Your task to perform on an android device: Search for sushi restaurants on Maps Image 0: 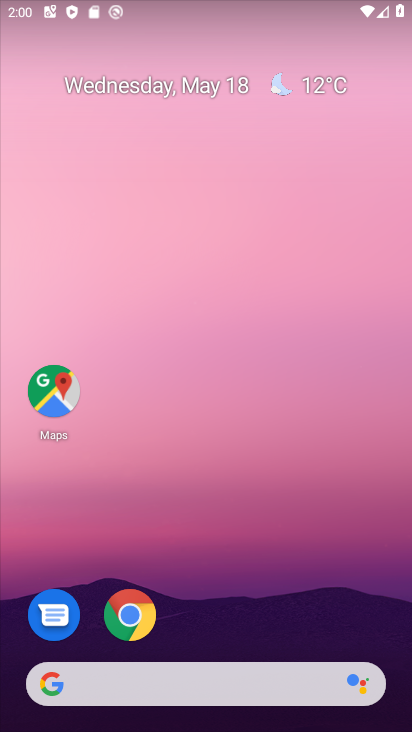
Step 0: drag from (341, 511) to (298, 14)
Your task to perform on an android device: Search for sushi restaurants on Maps Image 1: 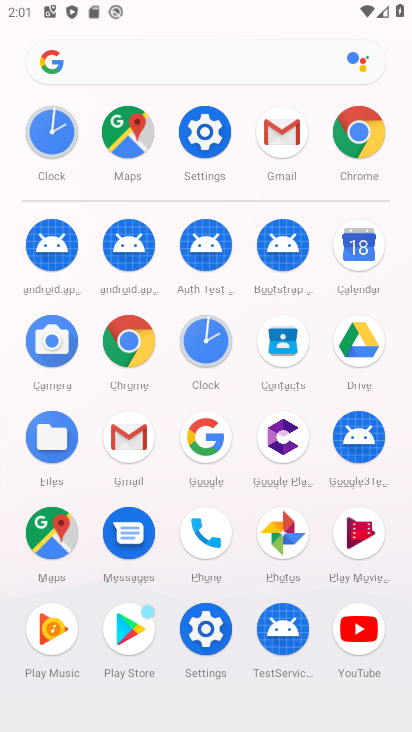
Step 1: click (58, 533)
Your task to perform on an android device: Search for sushi restaurants on Maps Image 2: 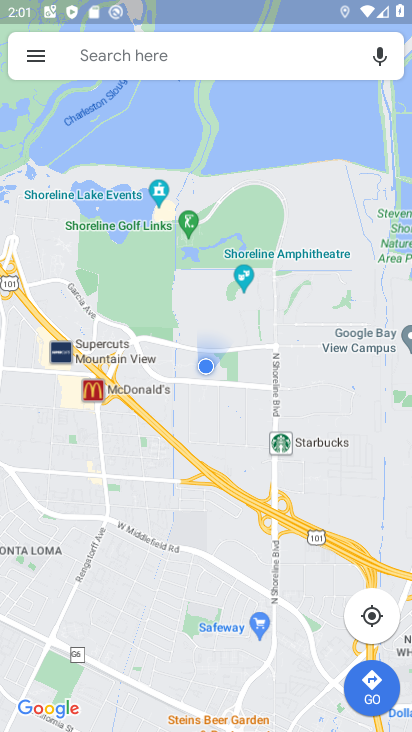
Step 2: click (140, 50)
Your task to perform on an android device: Search for sushi restaurants on Maps Image 3: 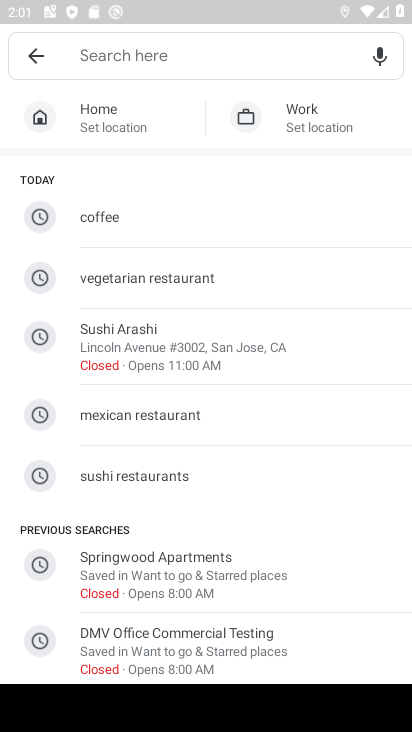
Step 3: click (151, 474)
Your task to perform on an android device: Search for sushi restaurants on Maps Image 4: 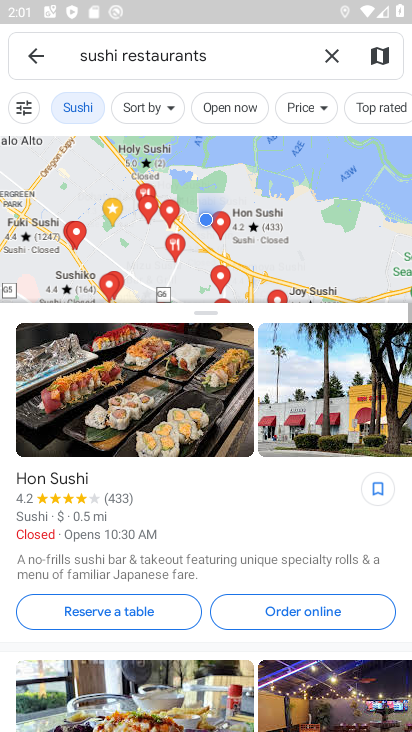
Step 4: task complete